Your task to perform on an android device: turn on showing notifications on the lock screen Image 0: 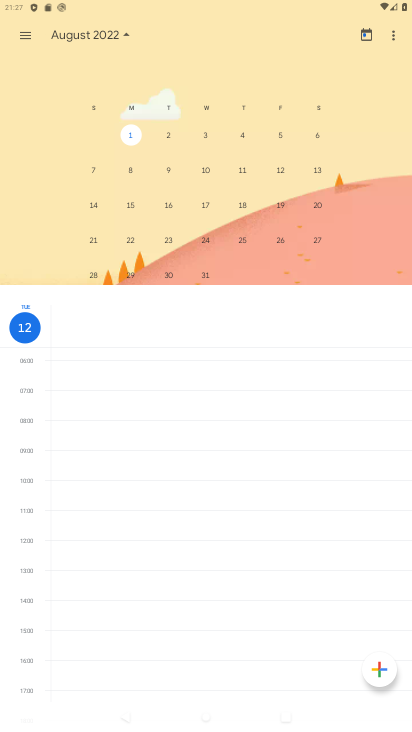
Step 0: press home button
Your task to perform on an android device: turn on showing notifications on the lock screen Image 1: 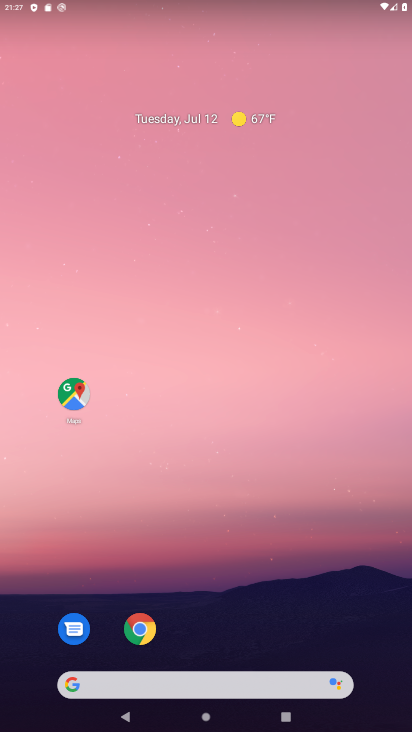
Step 1: drag from (191, 613) to (353, 3)
Your task to perform on an android device: turn on showing notifications on the lock screen Image 2: 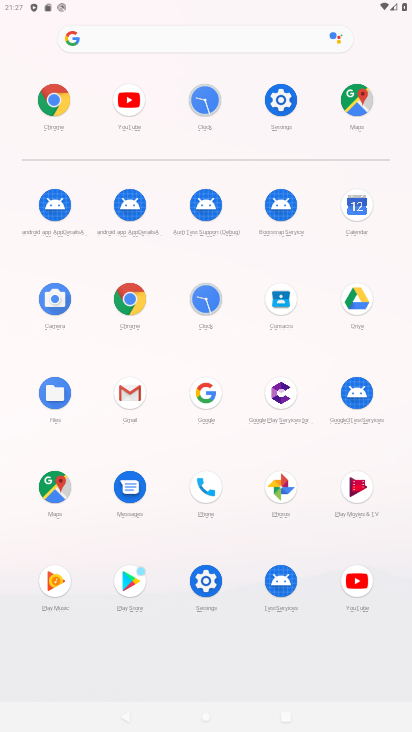
Step 2: click (284, 96)
Your task to perform on an android device: turn on showing notifications on the lock screen Image 3: 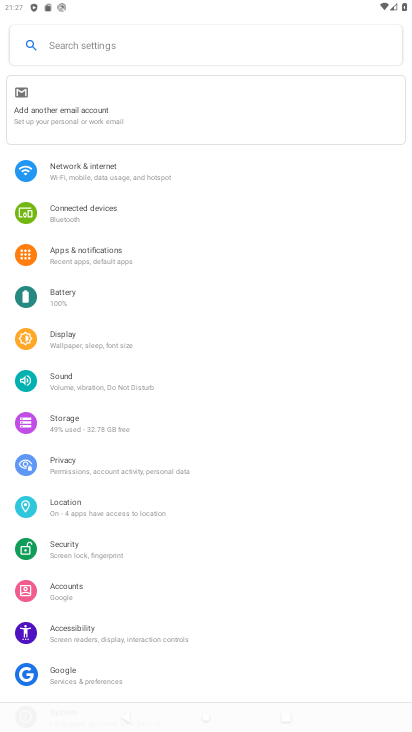
Step 3: click (53, 251)
Your task to perform on an android device: turn on showing notifications on the lock screen Image 4: 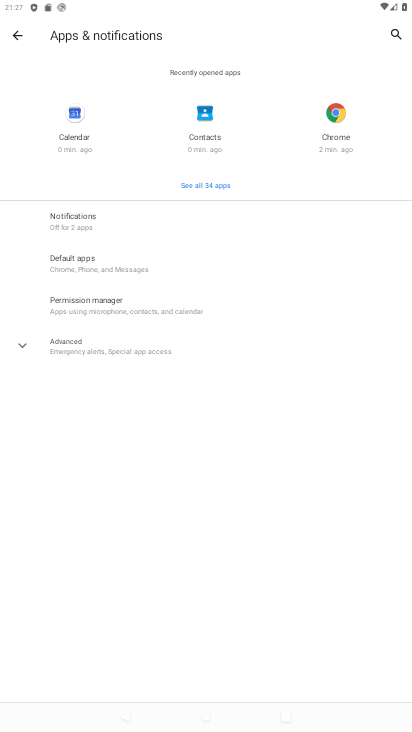
Step 4: click (110, 221)
Your task to perform on an android device: turn on showing notifications on the lock screen Image 5: 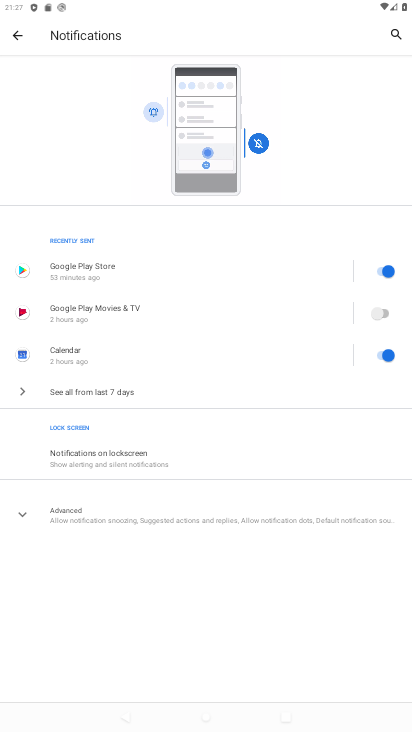
Step 5: click (137, 460)
Your task to perform on an android device: turn on showing notifications on the lock screen Image 6: 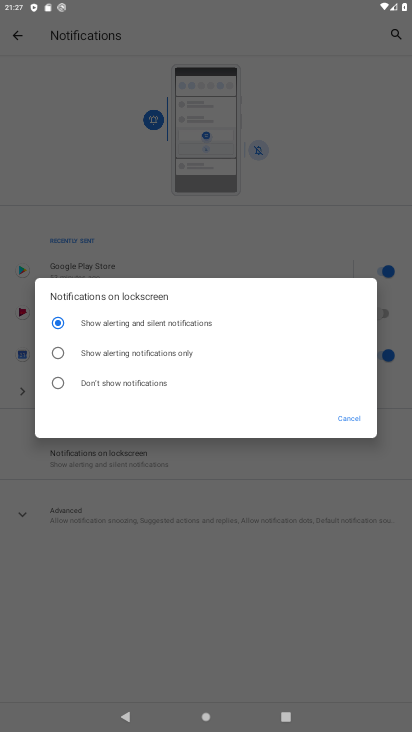
Step 6: task complete